Your task to perform on an android device: choose inbox layout in the gmail app Image 0: 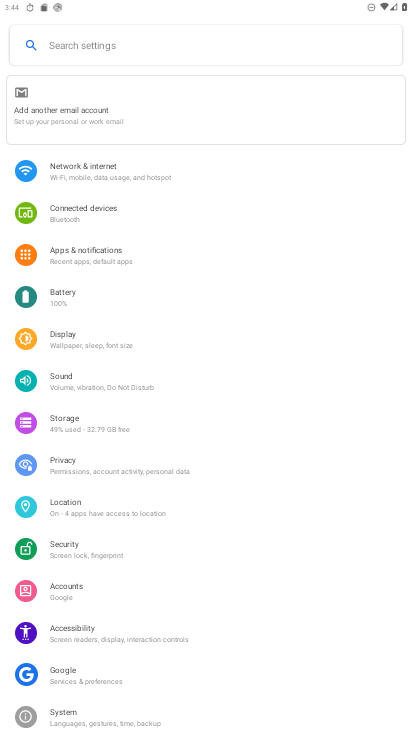
Step 0: press home button
Your task to perform on an android device: choose inbox layout in the gmail app Image 1: 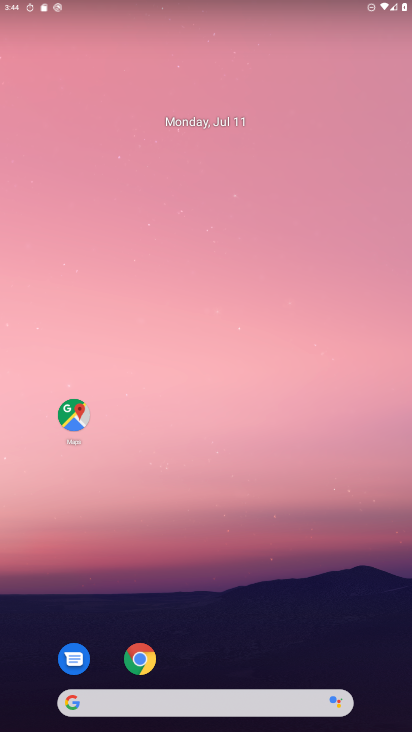
Step 1: drag from (313, 682) to (323, 215)
Your task to perform on an android device: choose inbox layout in the gmail app Image 2: 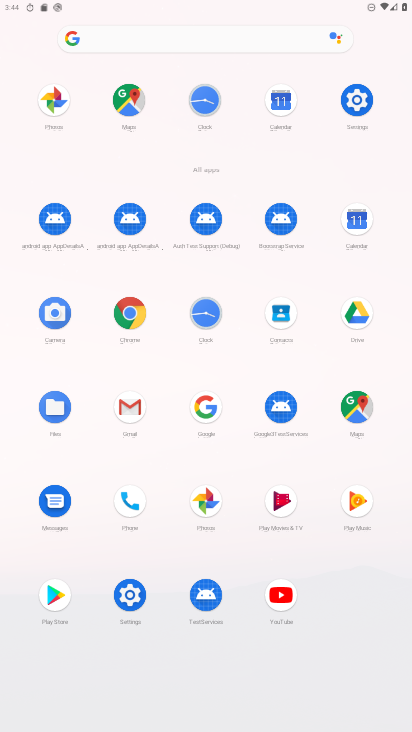
Step 2: click (134, 405)
Your task to perform on an android device: choose inbox layout in the gmail app Image 3: 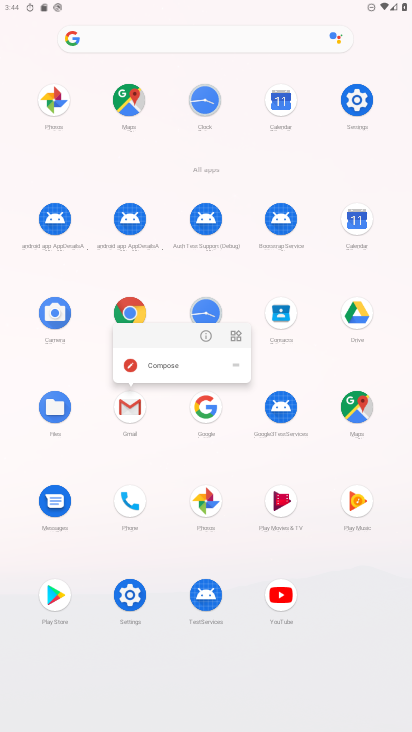
Step 3: click (128, 402)
Your task to perform on an android device: choose inbox layout in the gmail app Image 4: 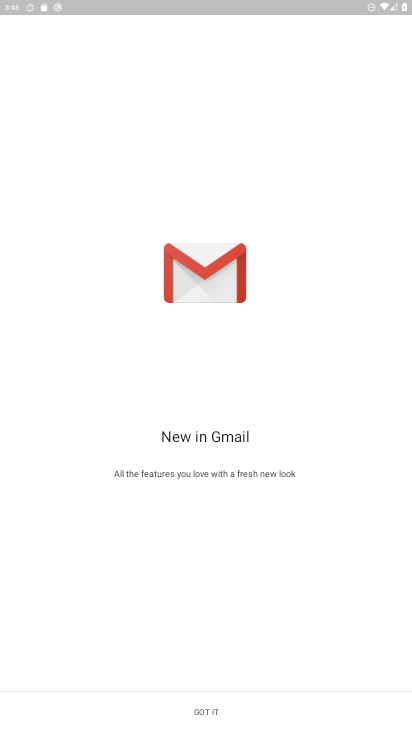
Step 4: click (240, 697)
Your task to perform on an android device: choose inbox layout in the gmail app Image 5: 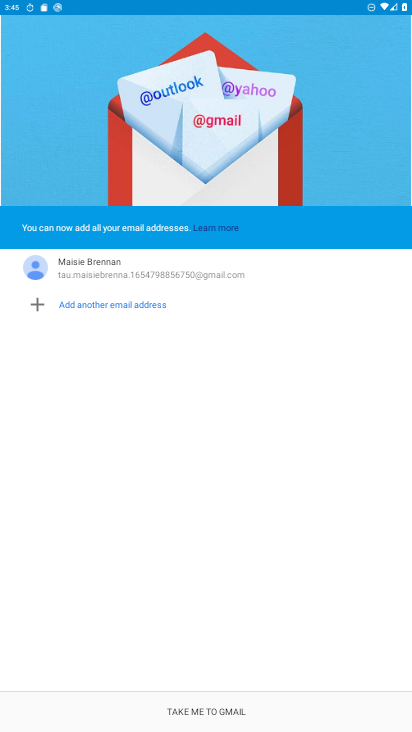
Step 5: click (214, 714)
Your task to perform on an android device: choose inbox layout in the gmail app Image 6: 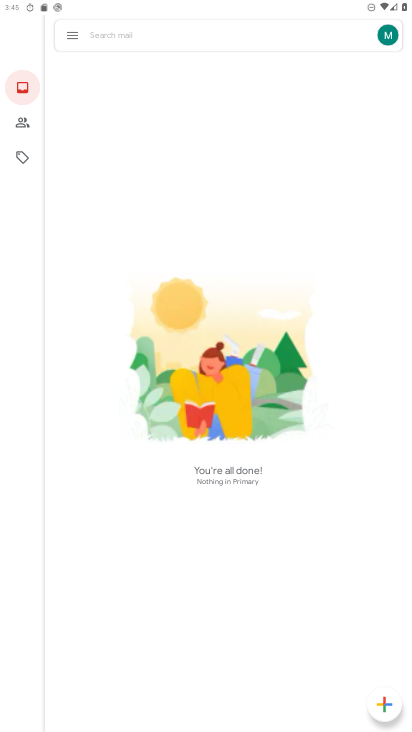
Step 6: click (61, 37)
Your task to perform on an android device: choose inbox layout in the gmail app Image 7: 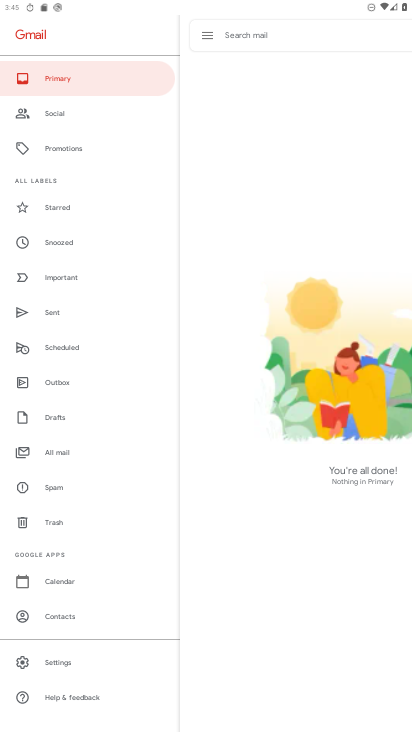
Step 7: click (74, 662)
Your task to perform on an android device: choose inbox layout in the gmail app Image 8: 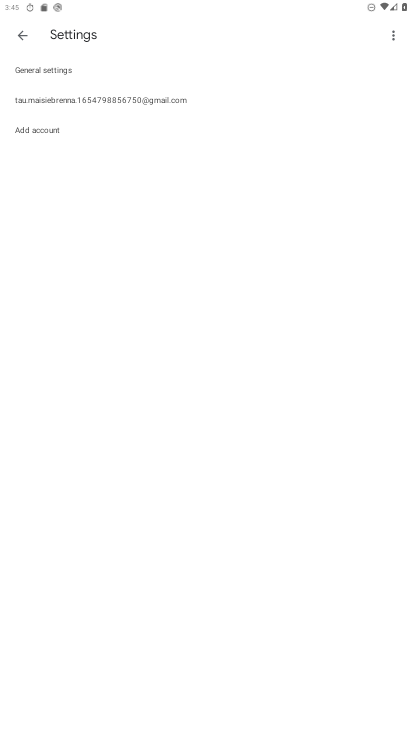
Step 8: click (140, 79)
Your task to perform on an android device: choose inbox layout in the gmail app Image 9: 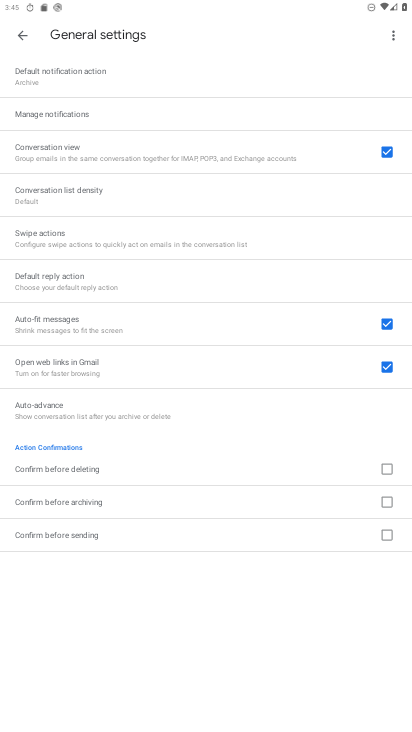
Step 9: click (20, 35)
Your task to perform on an android device: choose inbox layout in the gmail app Image 10: 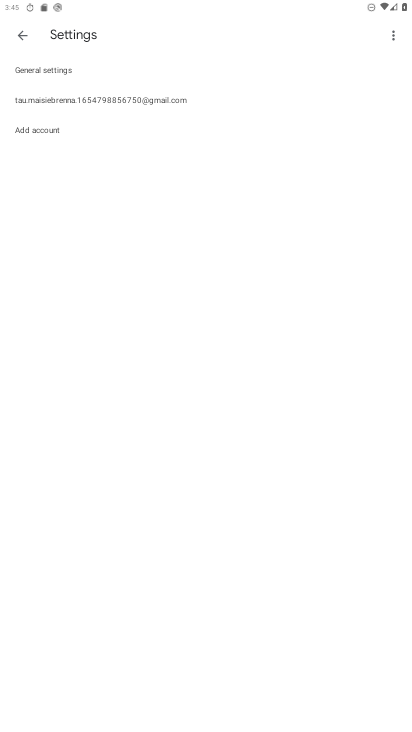
Step 10: click (71, 90)
Your task to perform on an android device: choose inbox layout in the gmail app Image 11: 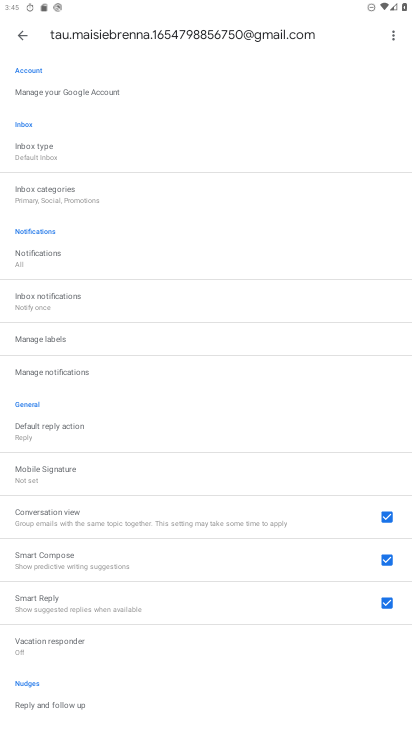
Step 11: click (49, 154)
Your task to perform on an android device: choose inbox layout in the gmail app Image 12: 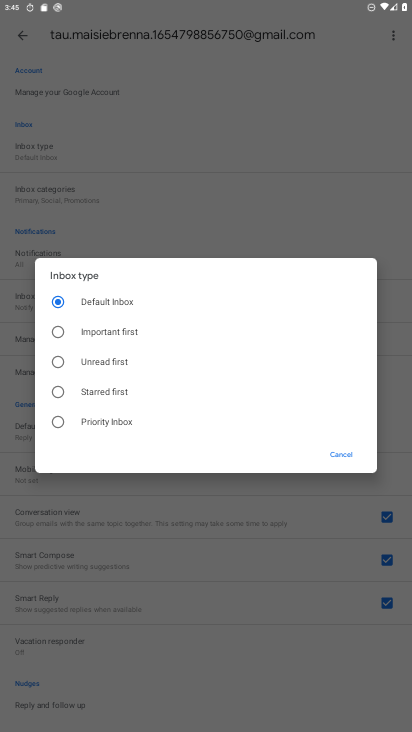
Step 12: click (82, 363)
Your task to perform on an android device: choose inbox layout in the gmail app Image 13: 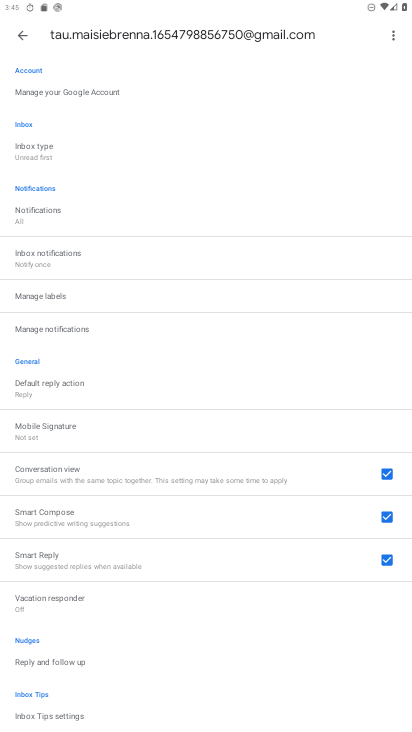
Step 13: task complete